Your task to perform on an android device: Add "usb-c to usb-b" to the cart on walmart, then select checkout. Image 0: 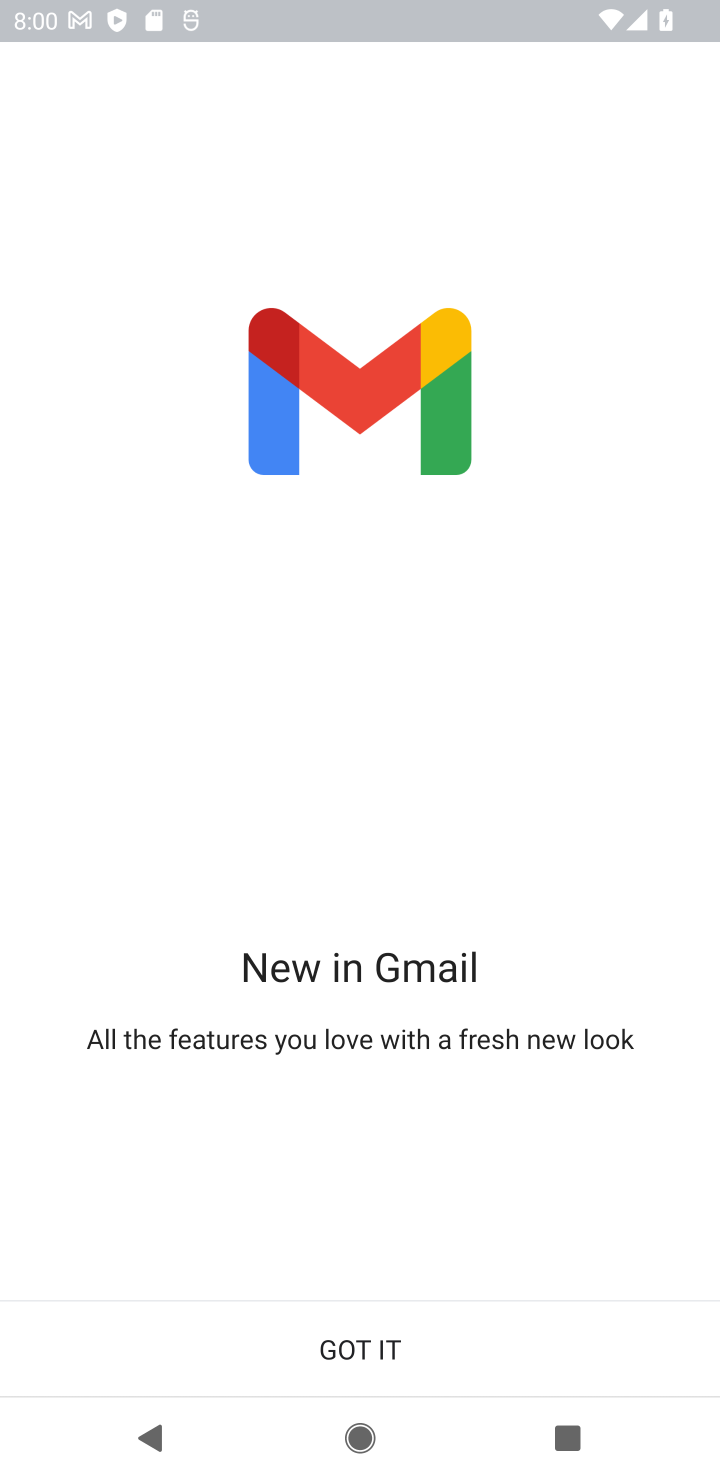
Step 0: press home button
Your task to perform on an android device: Add "usb-c to usb-b" to the cart on walmart, then select checkout. Image 1: 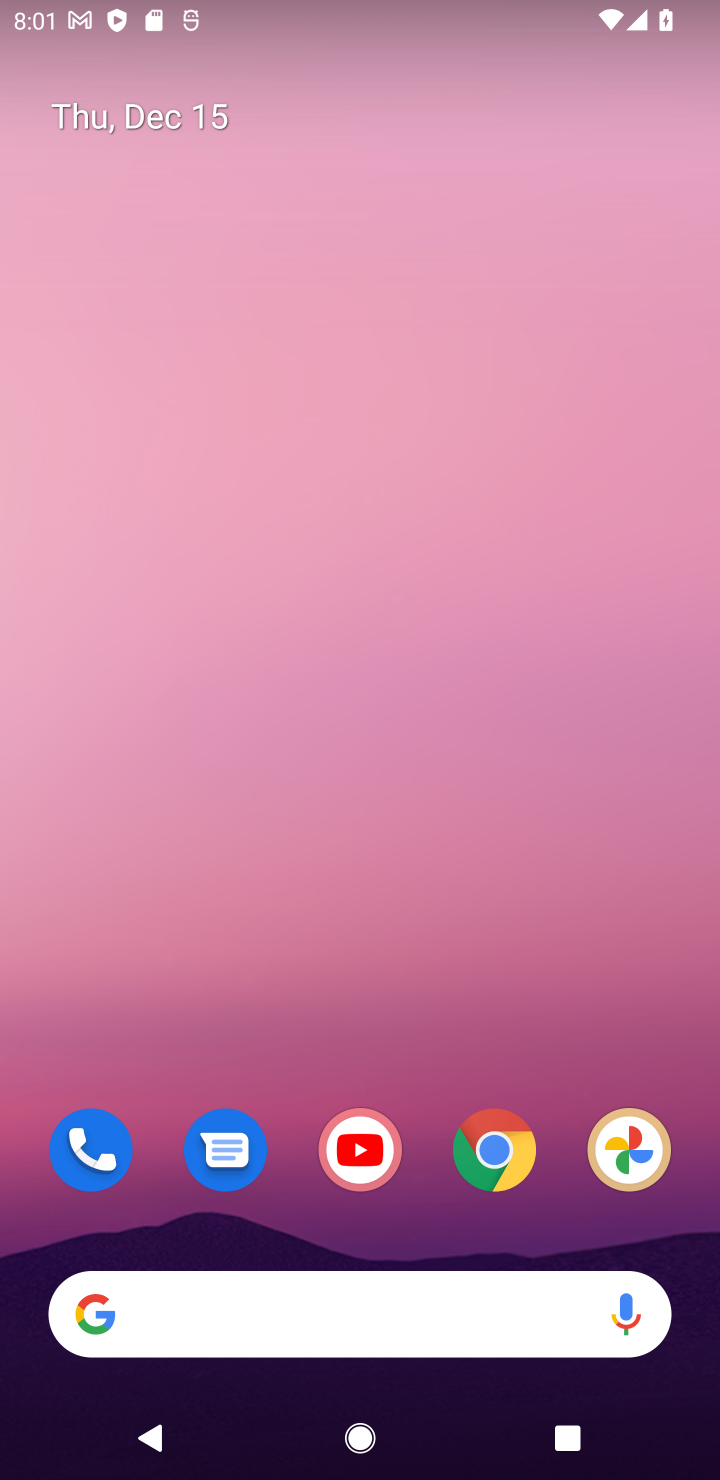
Step 1: click (507, 1170)
Your task to perform on an android device: Add "usb-c to usb-b" to the cart on walmart, then select checkout. Image 2: 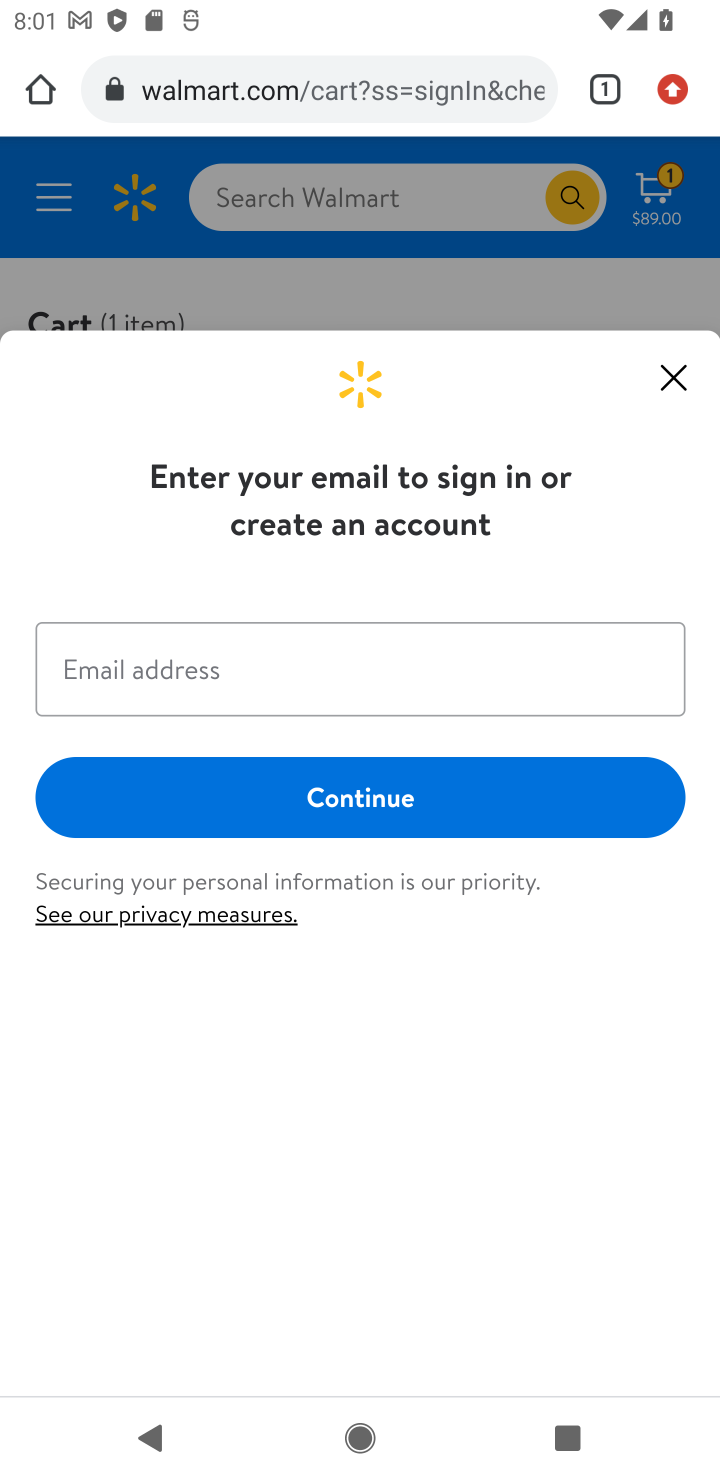
Step 2: click (672, 373)
Your task to perform on an android device: Add "usb-c to usb-b" to the cart on walmart, then select checkout. Image 3: 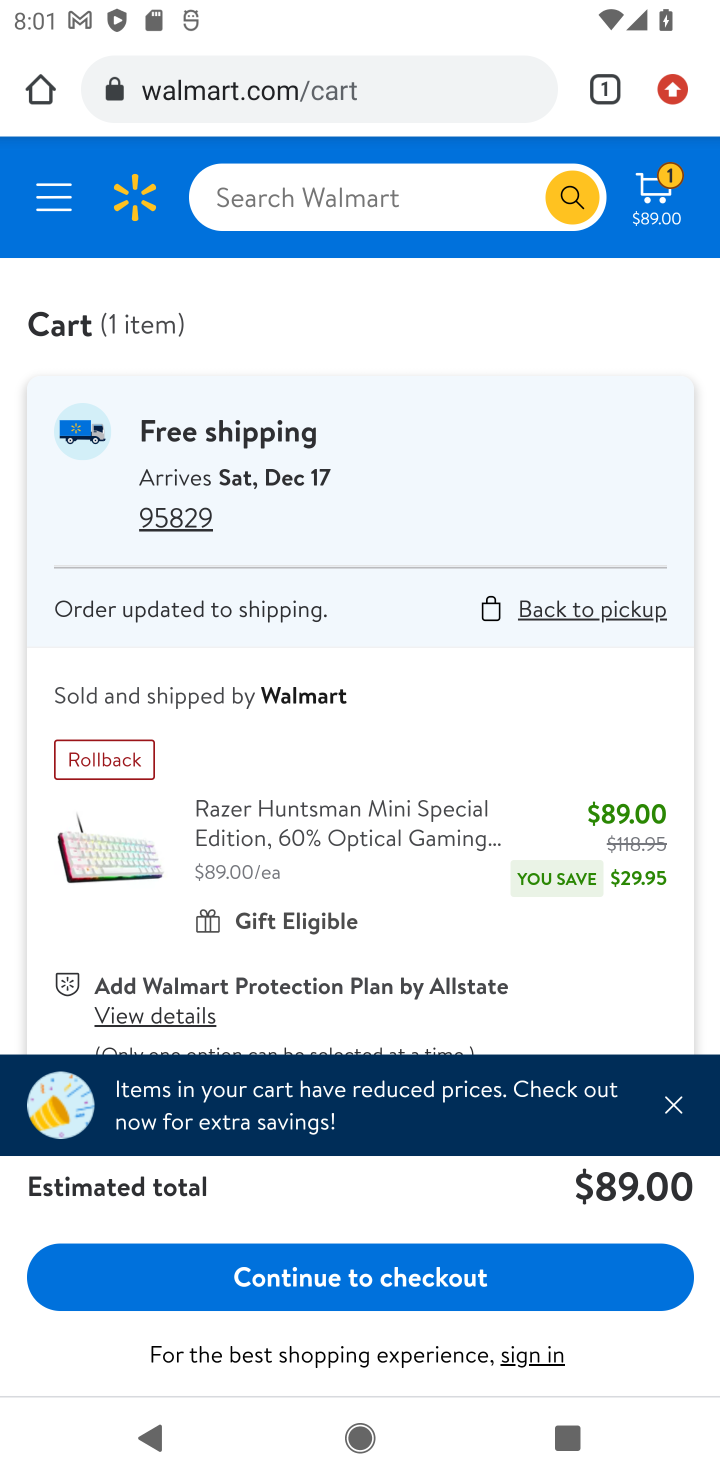
Step 3: click (310, 191)
Your task to perform on an android device: Add "usb-c to usb-b" to the cart on walmart, then select checkout. Image 4: 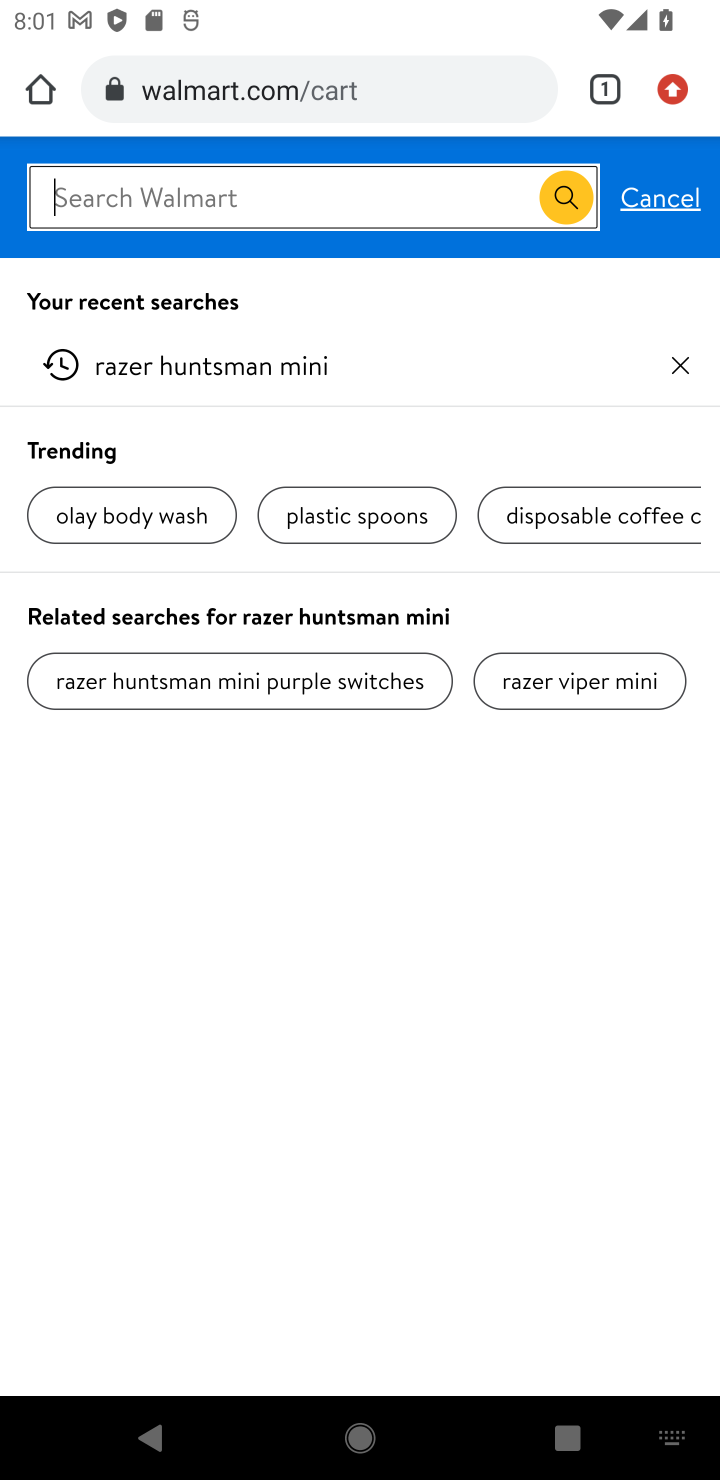
Step 4: click (360, 206)
Your task to perform on an android device: Add "usb-c to usb-b" to the cart on walmart, then select checkout. Image 5: 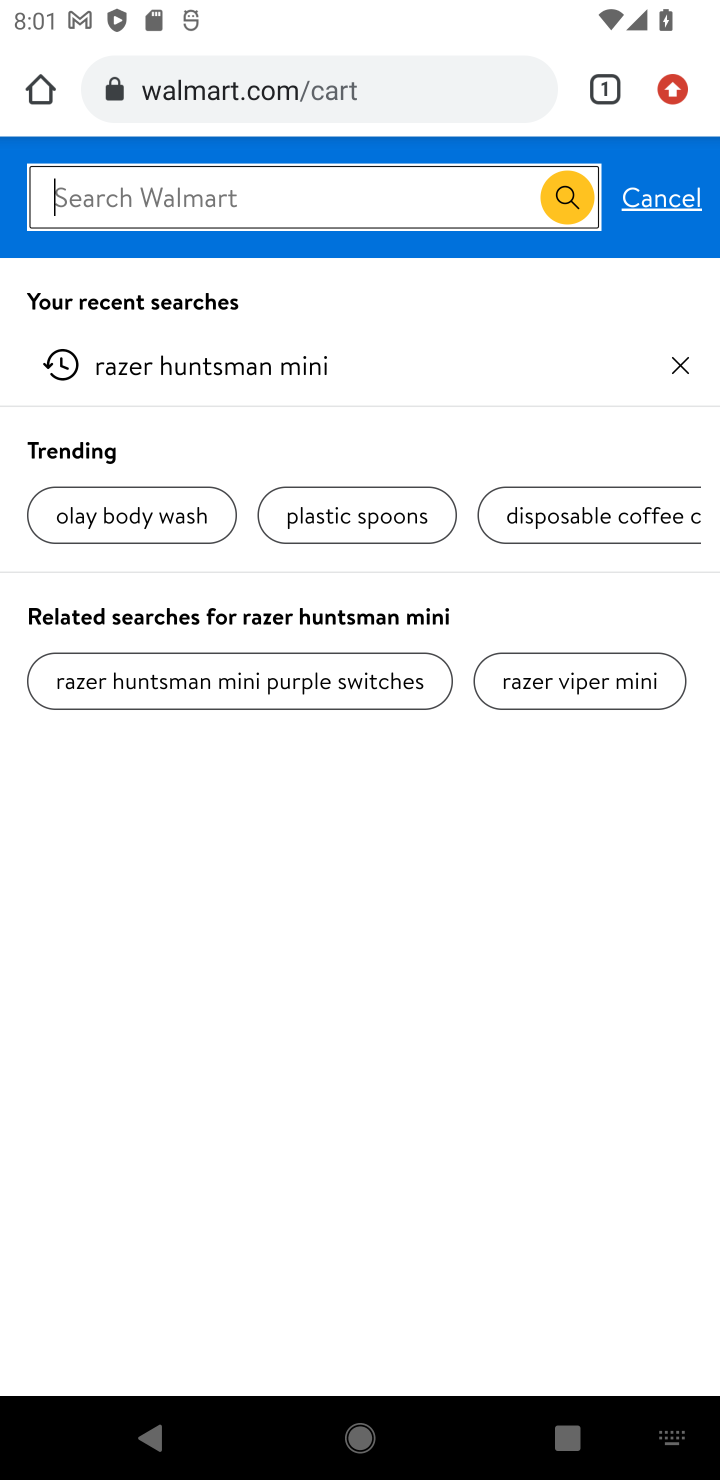
Step 5: type "usb-c to usb-b"
Your task to perform on an android device: Add "usb-c to usb-b" to the cart on walmart, then select checkout. Image 6: 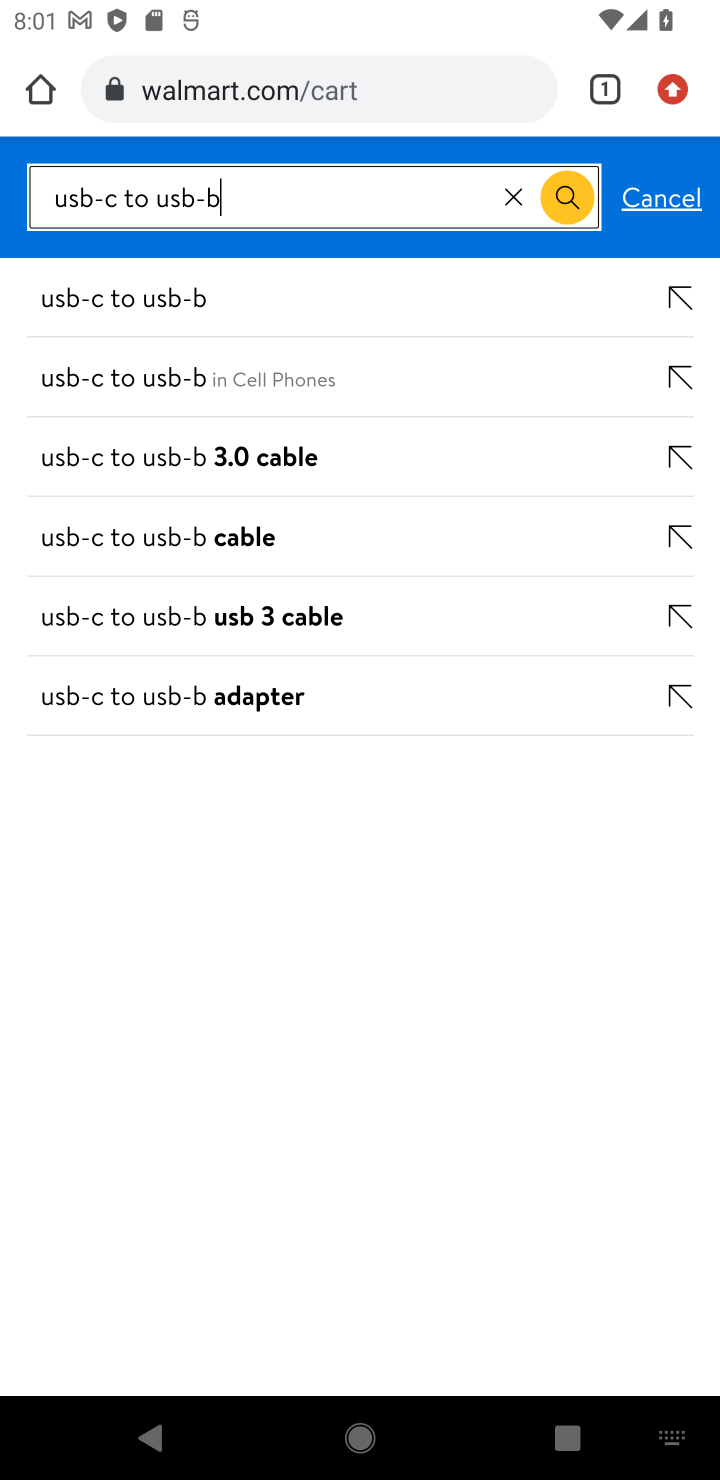
Step 6: click (230, 303)
Your task to perform on an android device: Add "usb-c to usb-b" to the cart on walmart, then select checkout. Image 7: 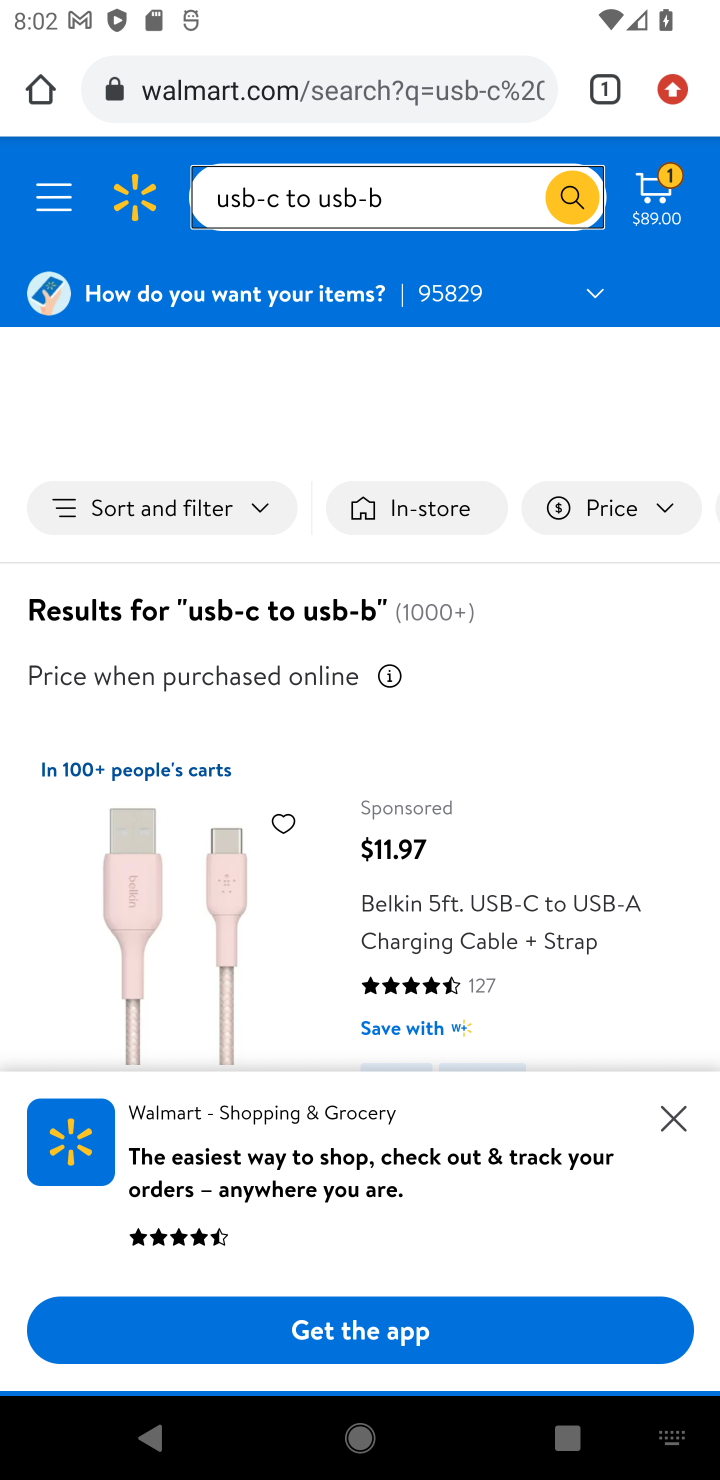
Step 7: click (571, 206)
Your task to perform on an android device: Add "usb-c to usb-b" to the cart on walmart, then select checkout. Image 8: 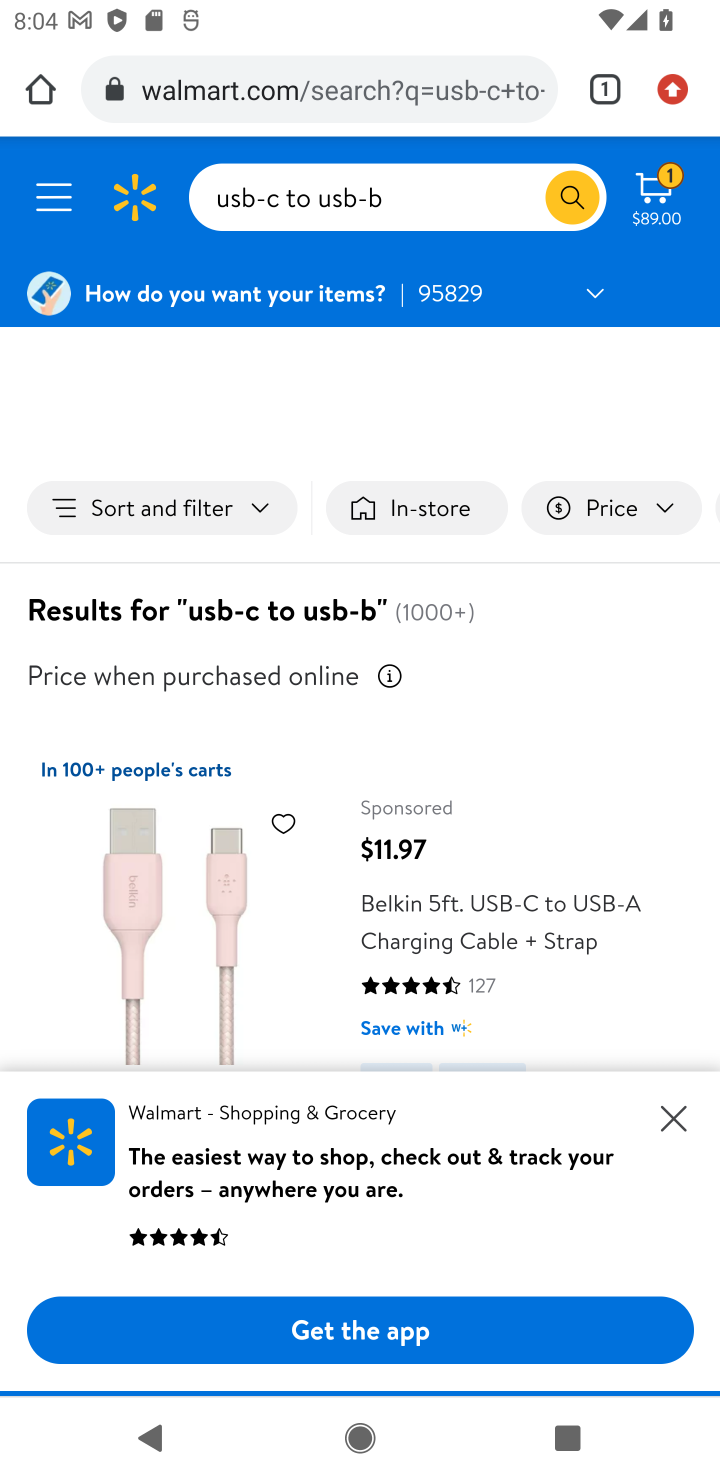
Step 8: click (500, 907)
Your task to perform on an android device: Add "usb-c to usb-b" to the cart on walmart, then select checkout. Image 9: 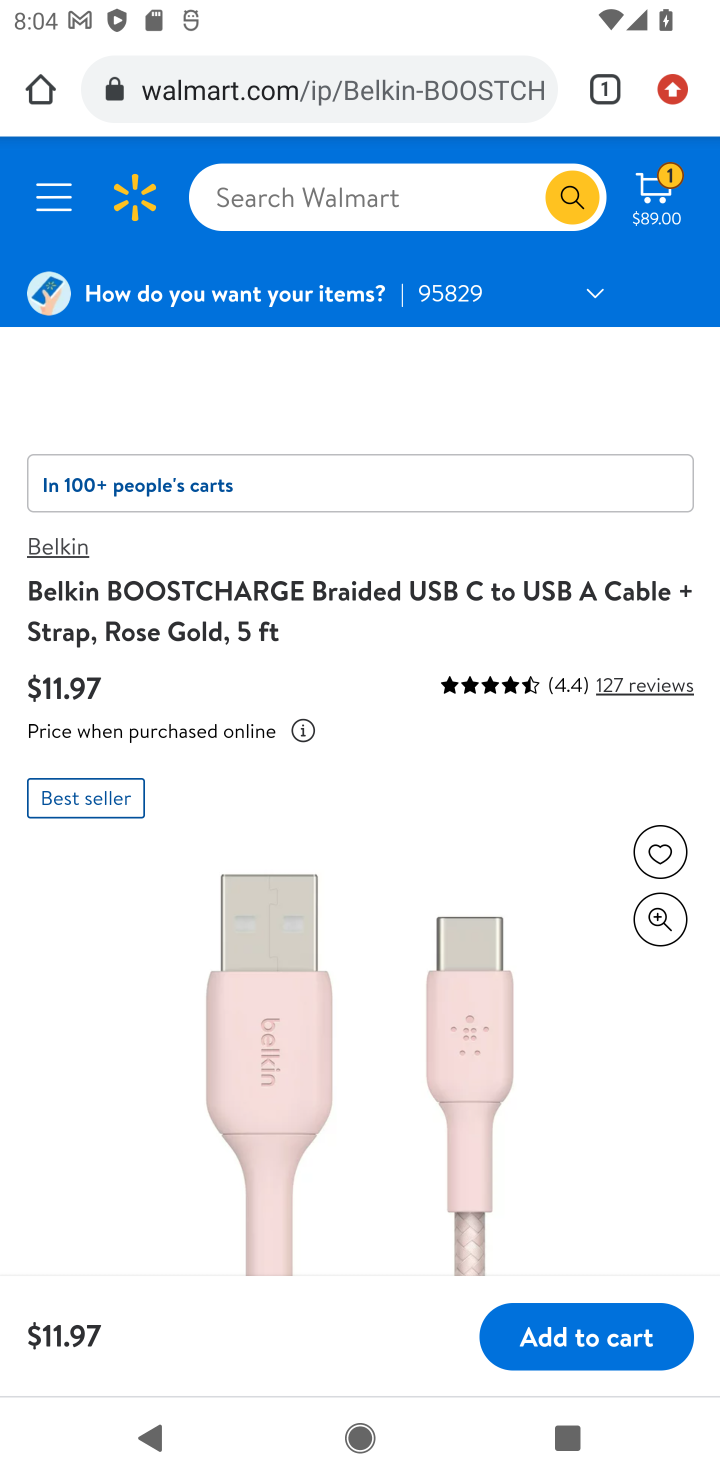
Step 9: click (592, 1334)
Your task to perform on an android device: Add "usb-c to usb-b" to the cart on walmart, then select checkout. Image 10: 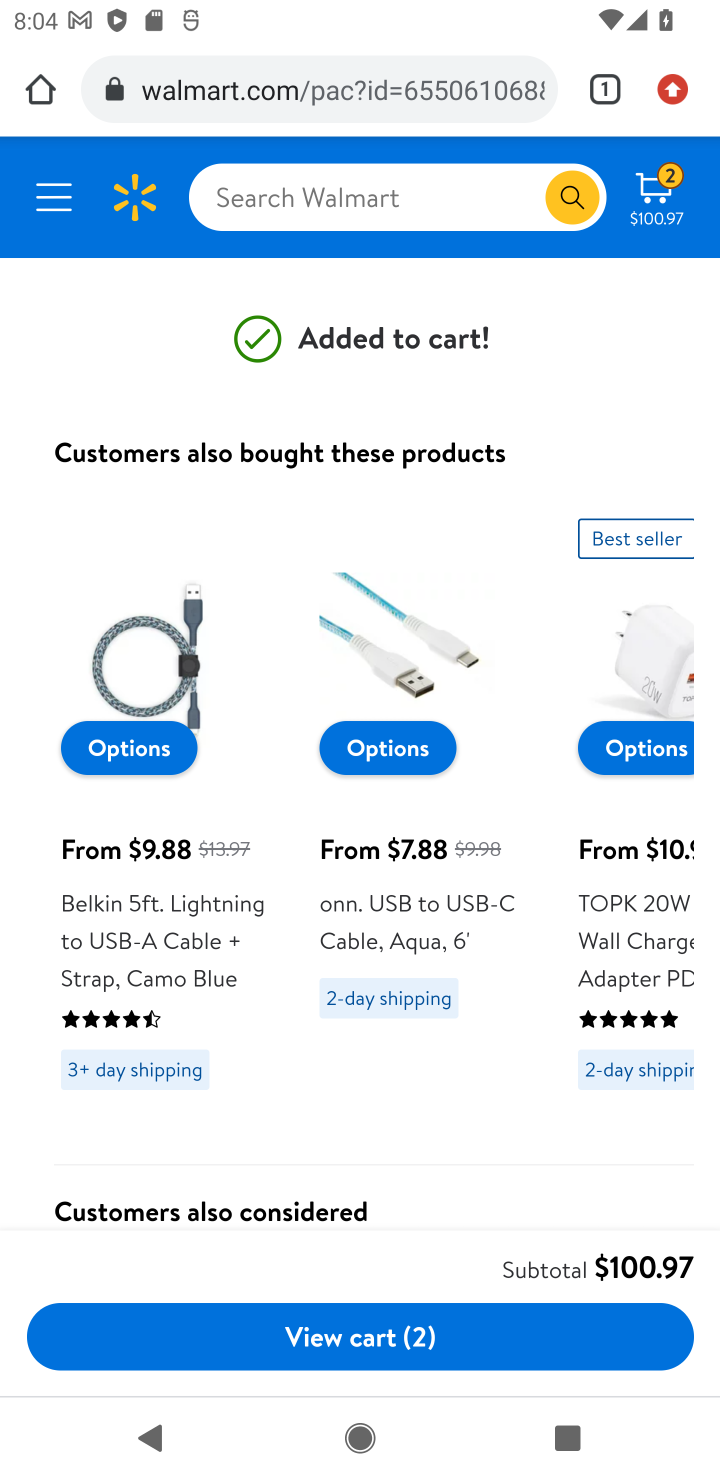
Step 10: click (660, 196)
Your task to perform on an android device: Add "usb-c to usb-b" to the cart on walmart, then select checkout. Image 11: 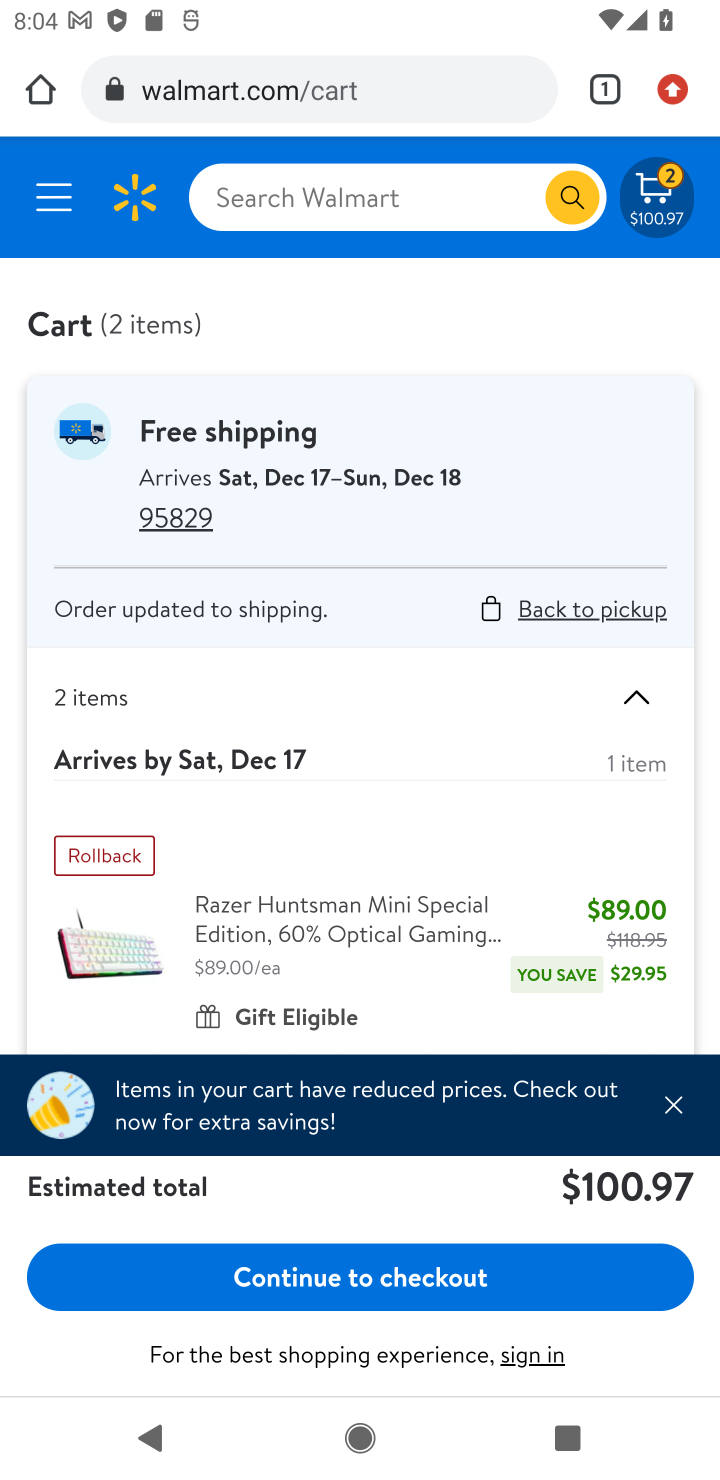
Step 11: click (373, 1270)
Your task to perform on an android device: Add "usb-c to usb-b" to the cart on walmart, then select checkout. Image 12: 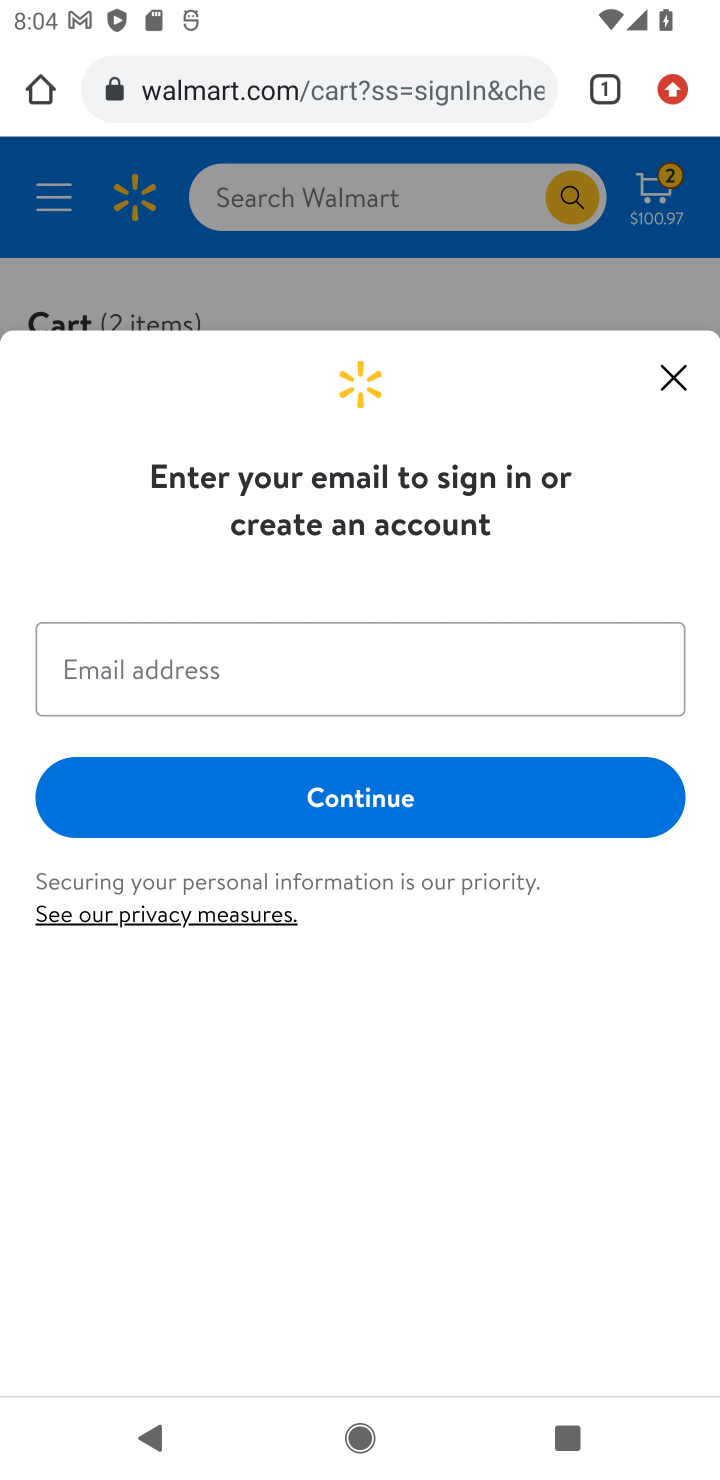
Step 12: click (666, 372)
Your task to perform on an android device: Add "usb-c to usb-b" to the cart on walmart, then select checkout. Image 13: 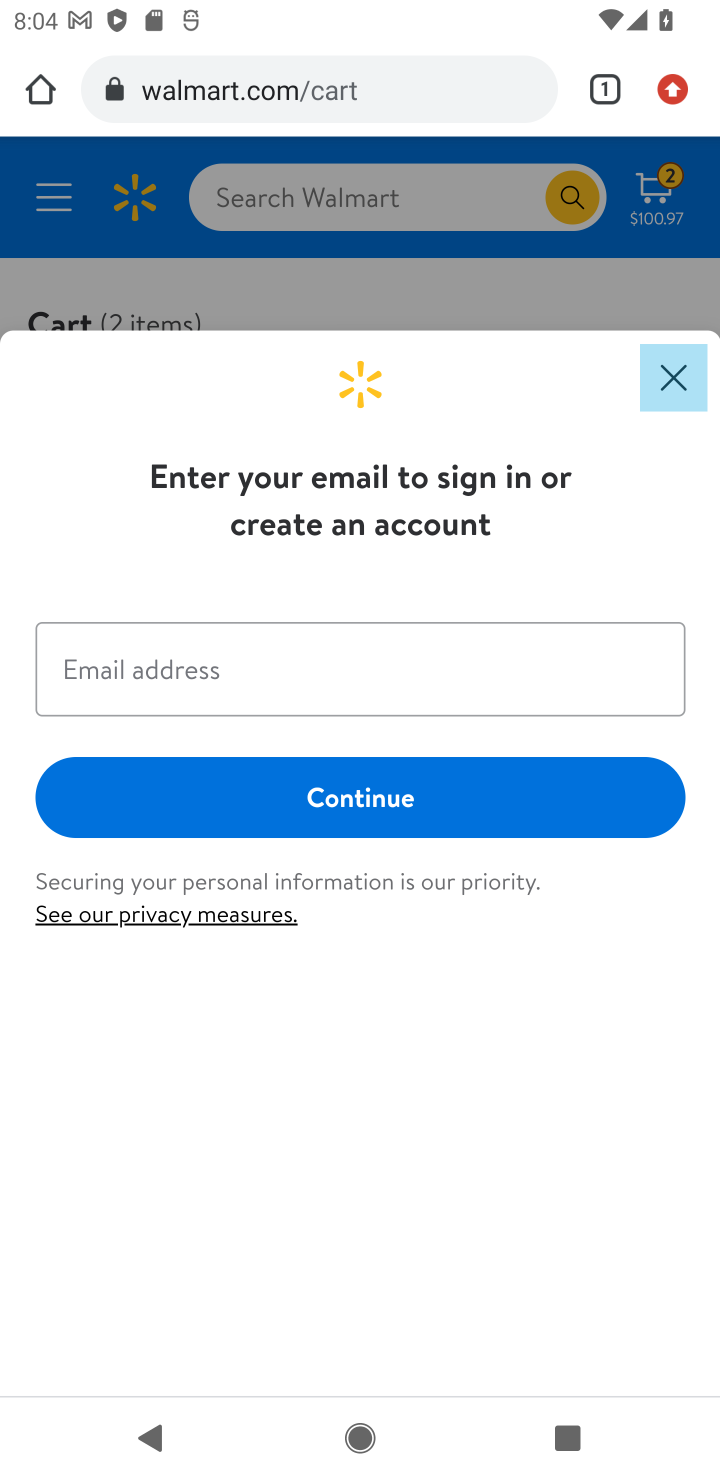
Step 13: task complete